Your task to perform on an android device: open app "Airtel Thanks" Image 0: 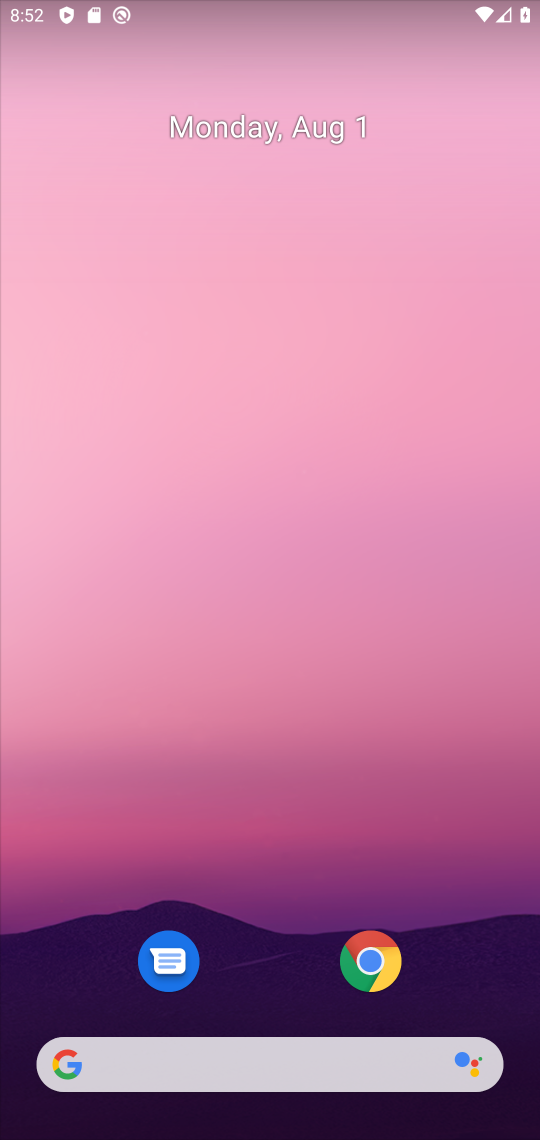
Step 0: drag from (398, 899) to (217, 3)
Your task to perform on an android device: open app "Airtel Thanks" Image 1: 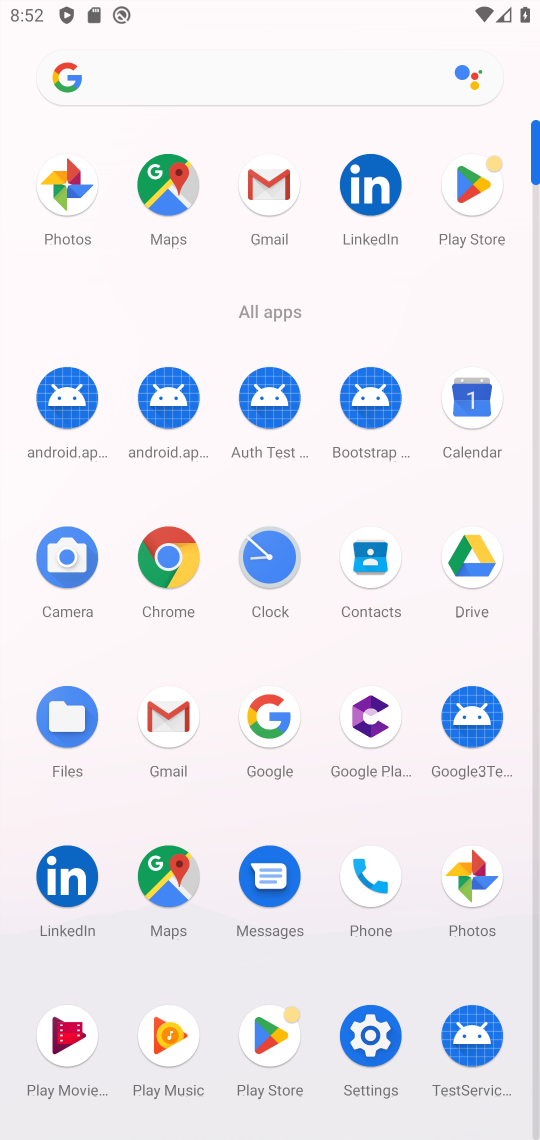
Step 1: click (448, 188)
Your task to perform on an android device: open app "Airtel Thanks" Image 2: 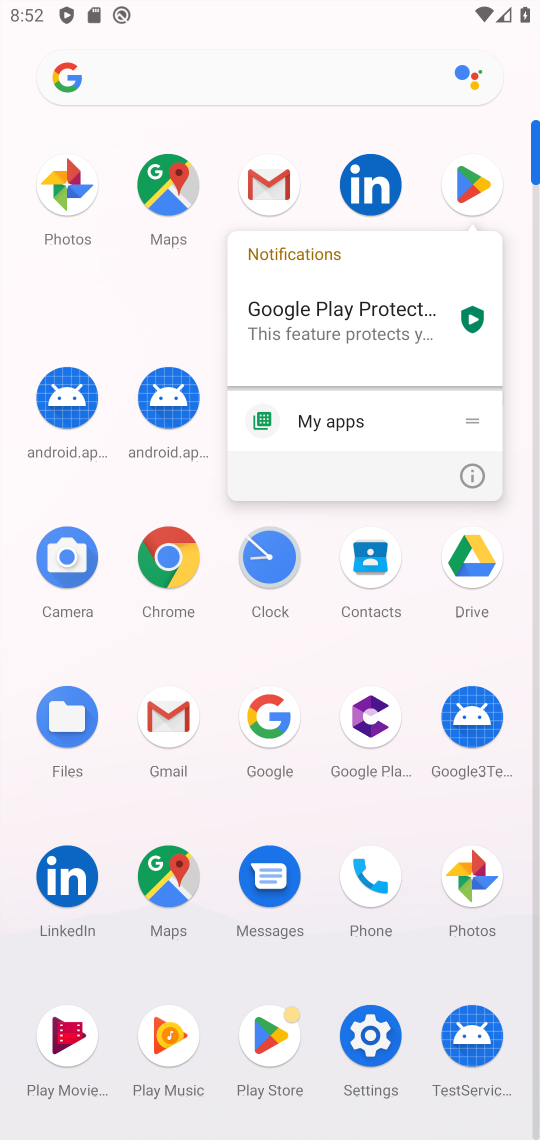
Step 2: click (466, 190)
Your task to perform on an android device: open app "Airtel Thanks" Image 3: 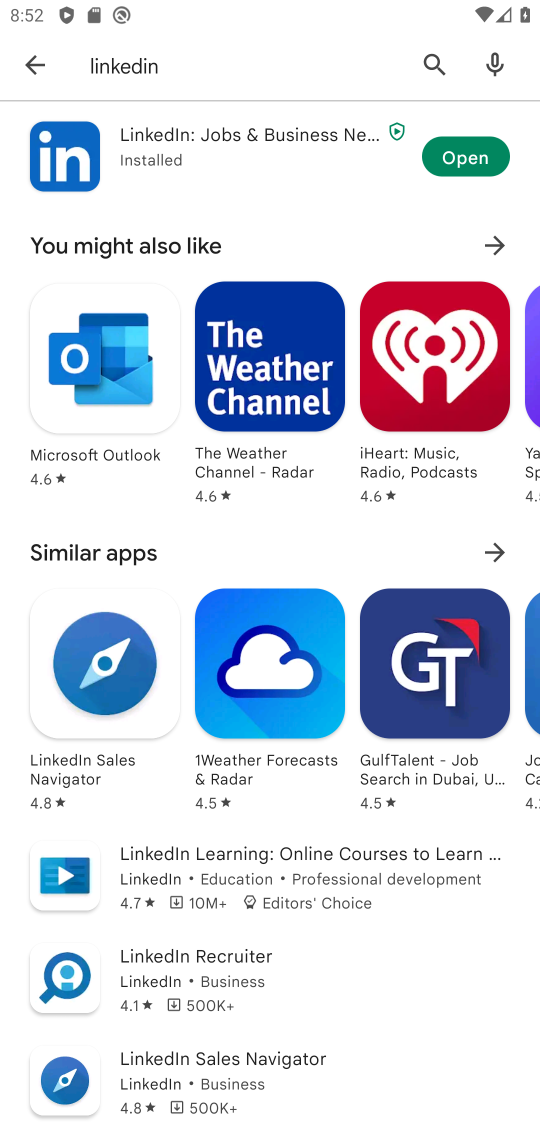
Step 3: click (36, 64)
Your task to perform on an android device: open app "Airtel Thanks" Image 4: 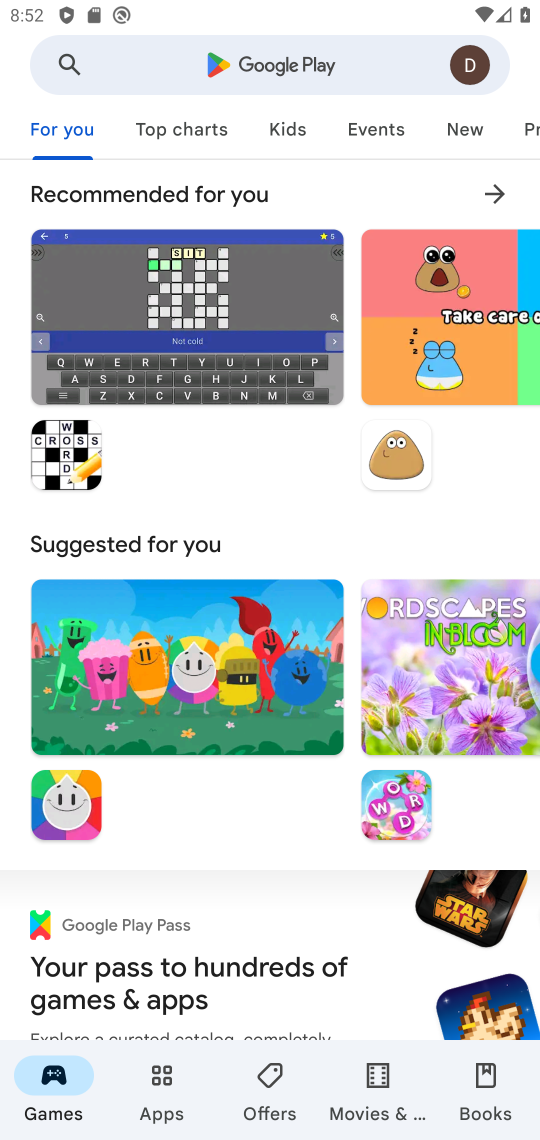
Step 4: click (190, 63)
Your task to perform on an android device: open app "Airtel Thanks" Image 5: 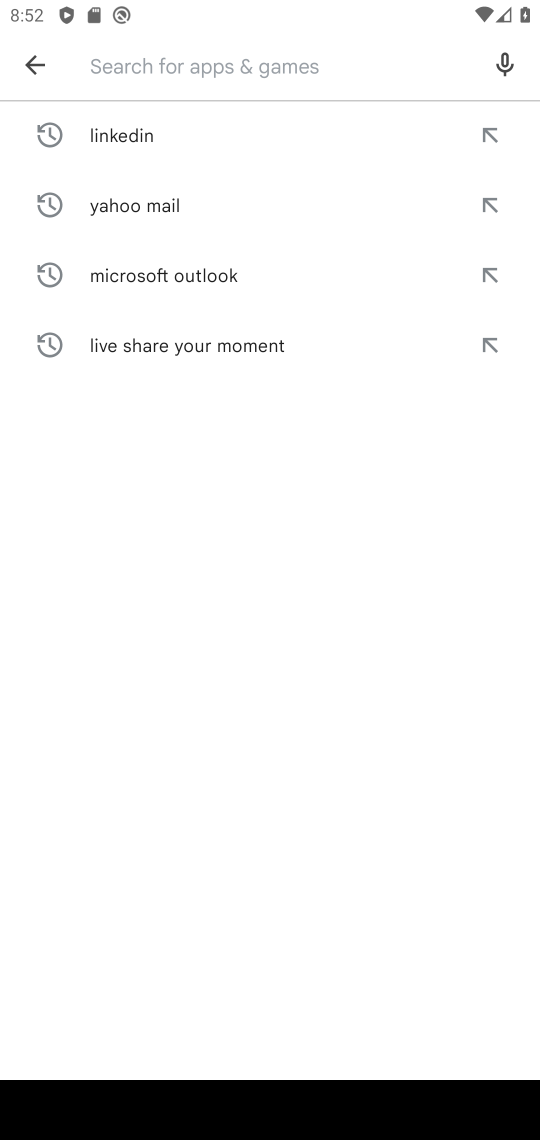
Step 5: type "Airtel Thanks"
Your task to perform on an android device: open app "Airtel Thanks" Image 6: 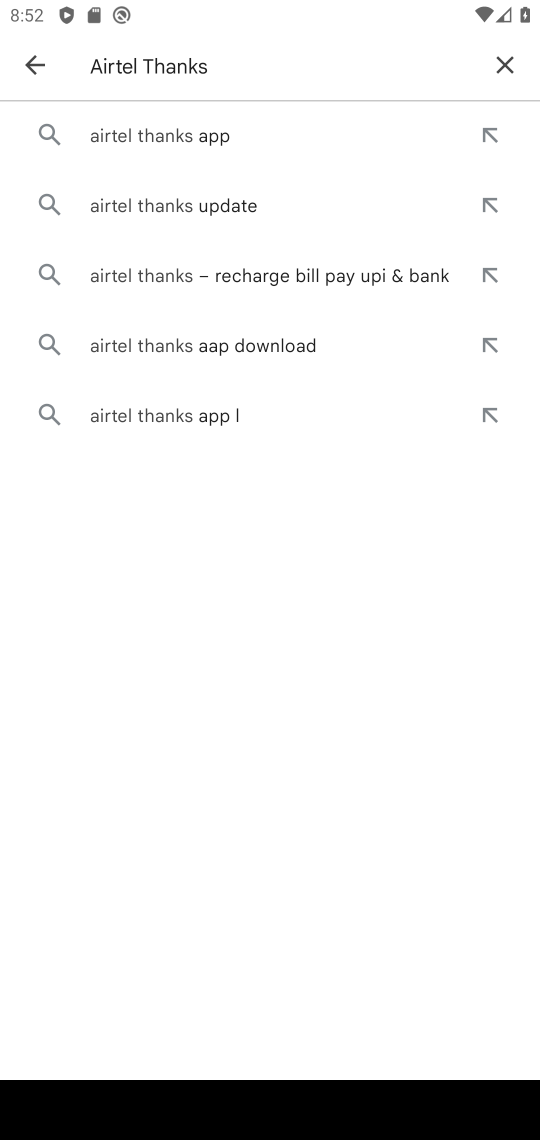
Step 6: click (129, 142)
Your task to perform on an android device: open app "Airtel Thanks" Image 7: 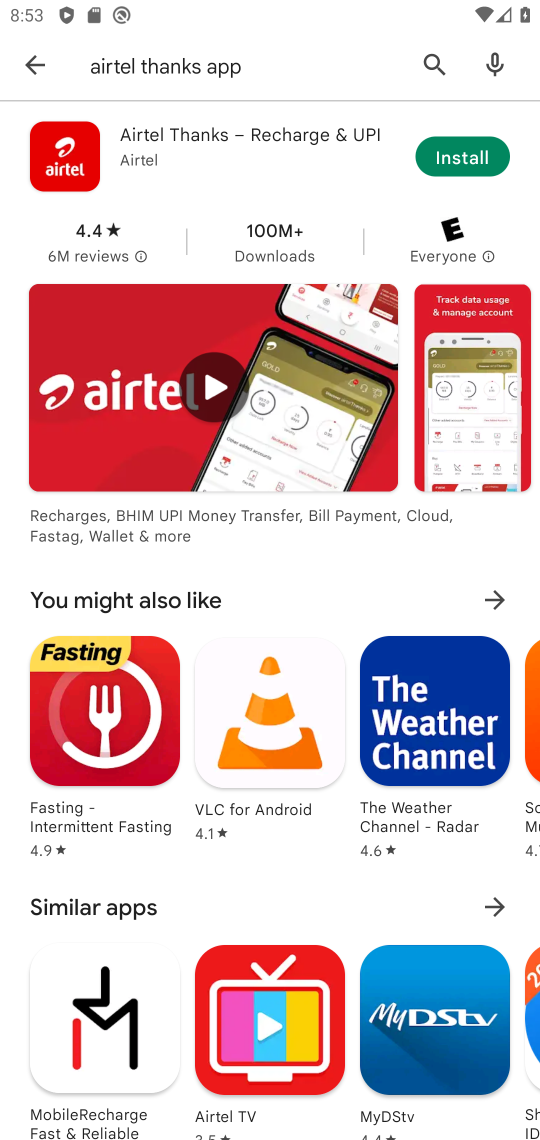
Step 7: task complete